Your task to perform on an android device: open app "Pinterest" (install if not already installed) Image 0: 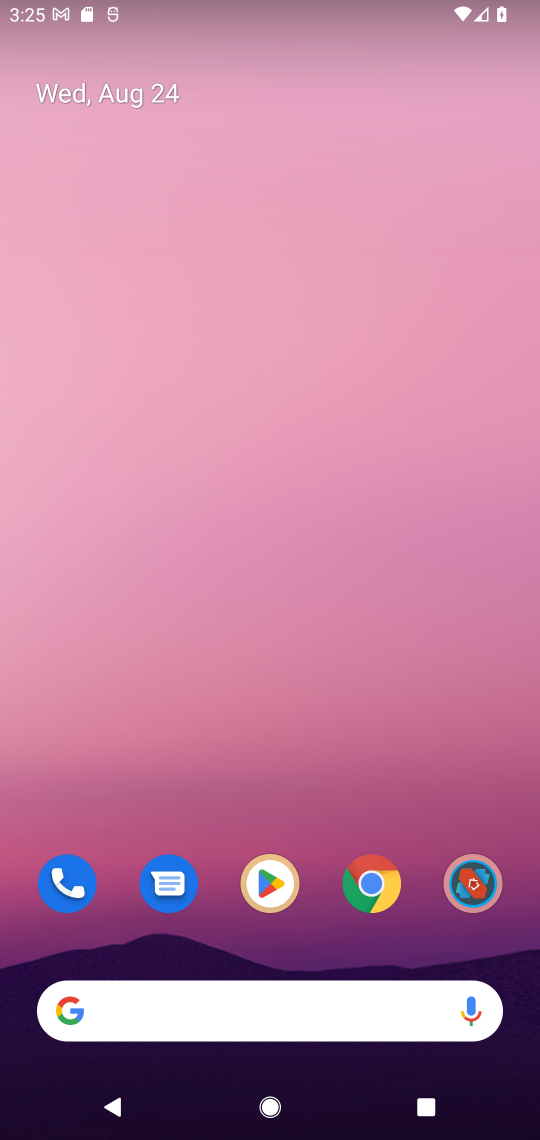
Step 0: drag from (244, 959) to (347, 260)
Your task to perform on an android device: open app "Pinterest" (install if not already installed) Image 1: 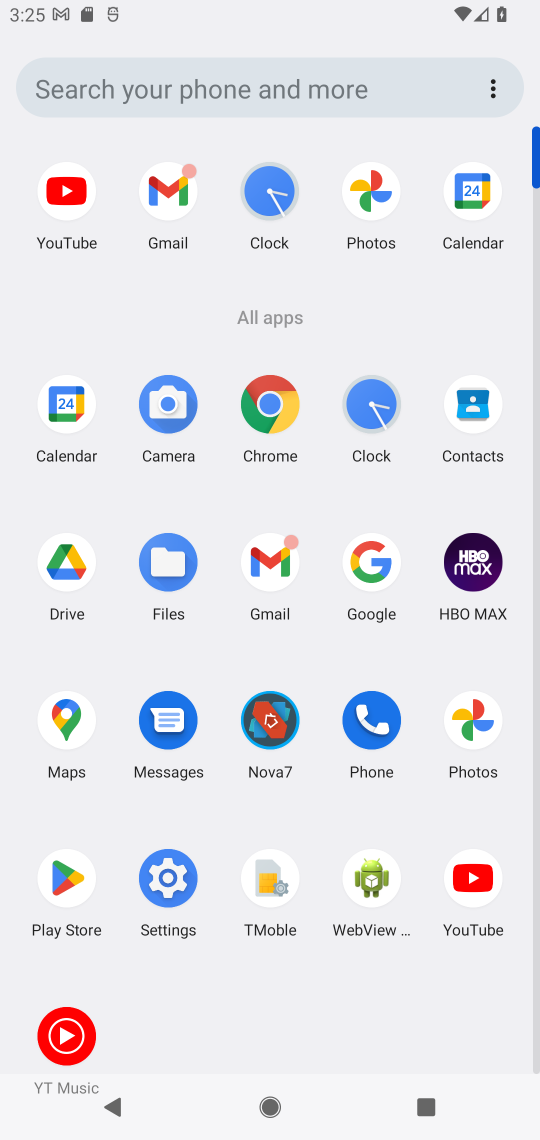
Step 1: click (50, 878)
Your task to perform on an android device: open app "Pinterest" (install if not already installed) Image 2: 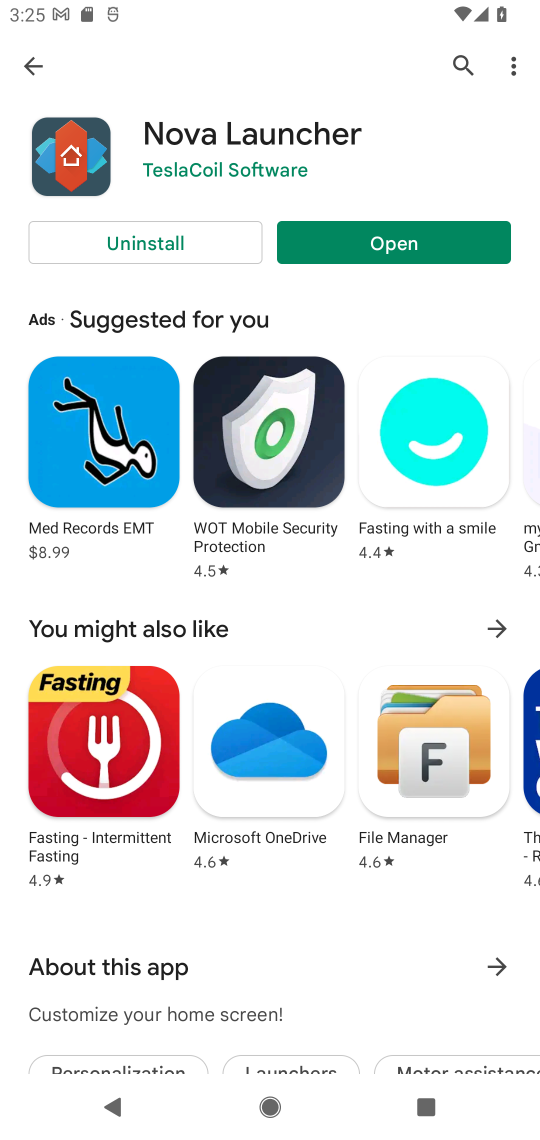
Step 2: click (460, 80)
Your task to perform on an android device: open app "Pinterest" (install if not already installed) Image 3: 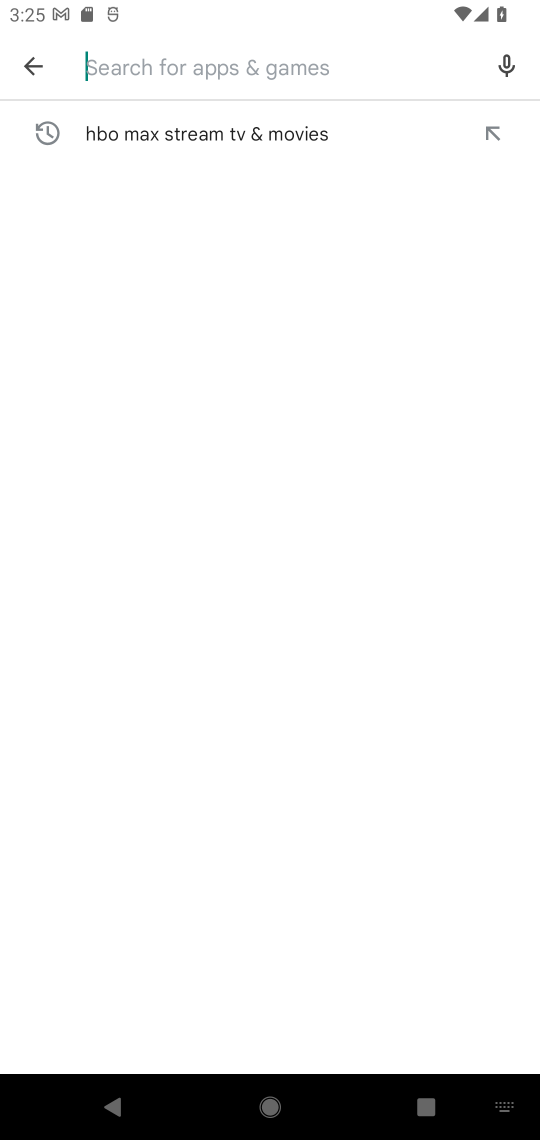
Step 3: type "Pinterest"
Your task to perform on an android device: open app "Pinterest" (install if not already installed) Image 4: 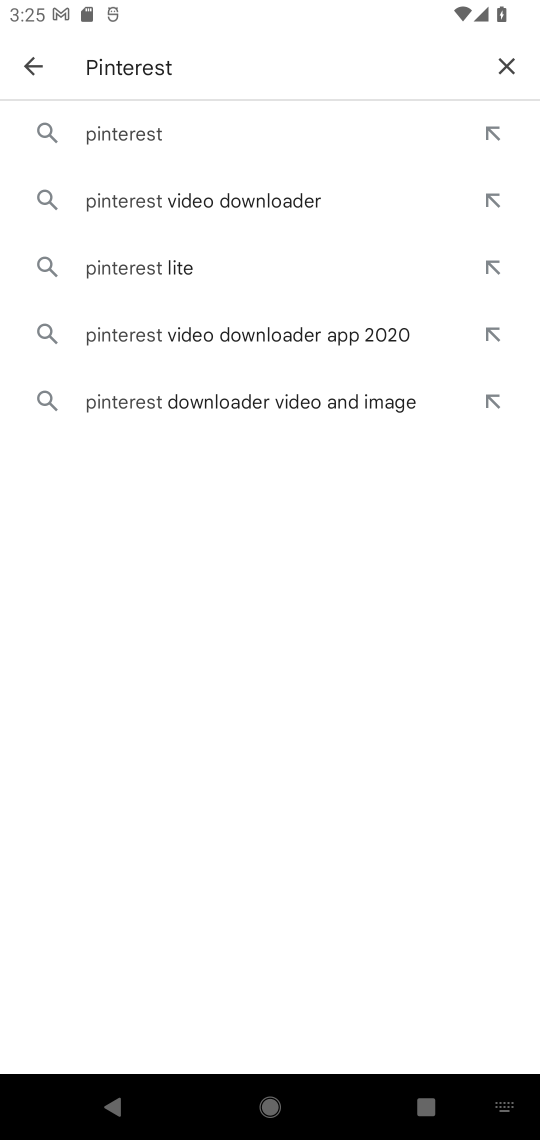
Step 4: click (114, 139)
Your task to perform on an android device: open app "Pinterest" (install if not already installed) Image 5: 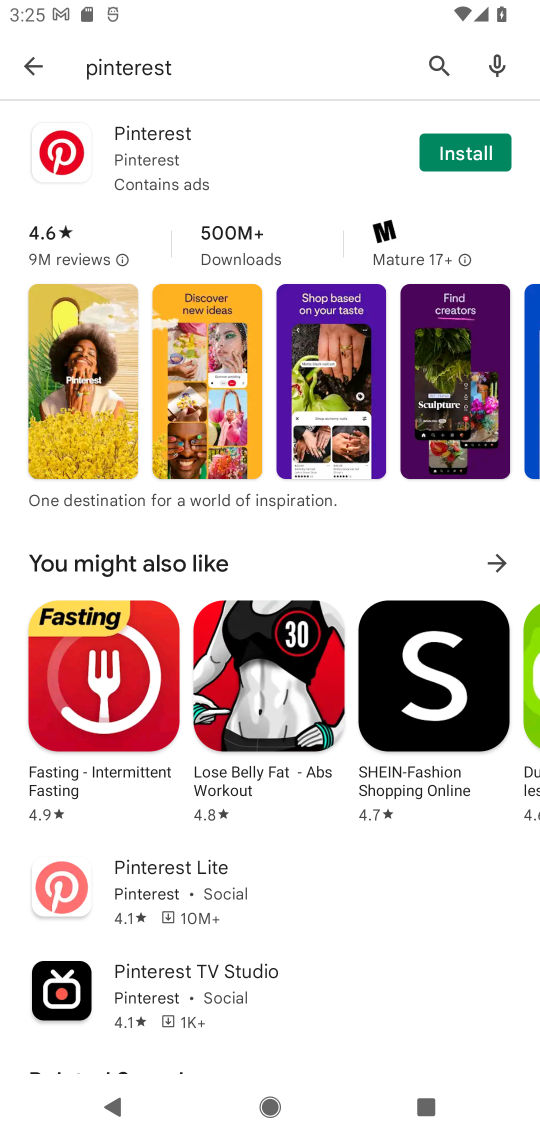
Step 5: click (459, 156)
Your task to perform on an android device: open app "Pinterest" (install if not already installed) Image 6: 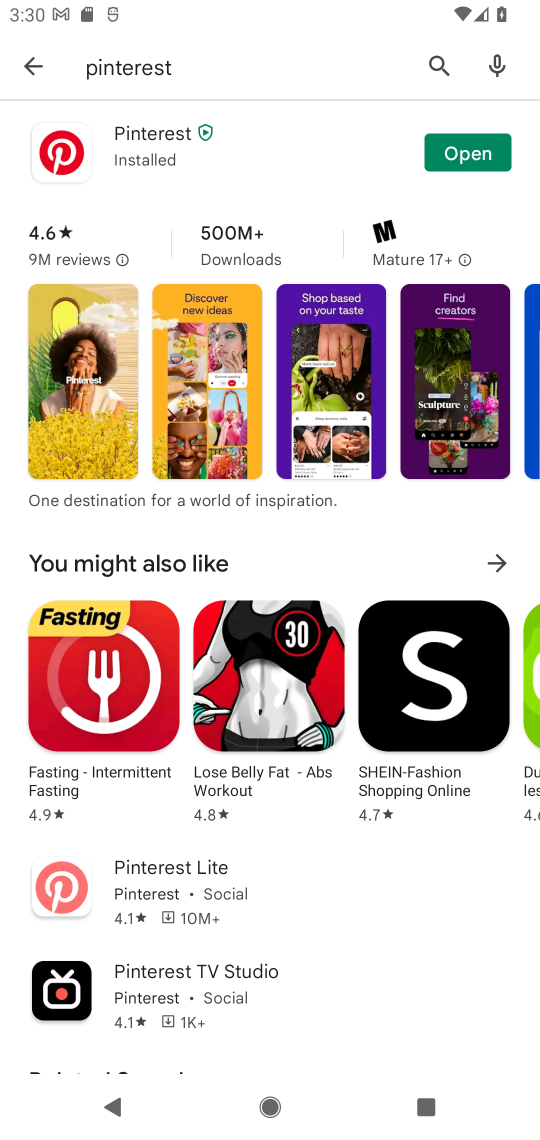
Step 6: click (463, 156)
Your task to perform on an android device: open app "Pinterest" (install if not already installed) Image 7: 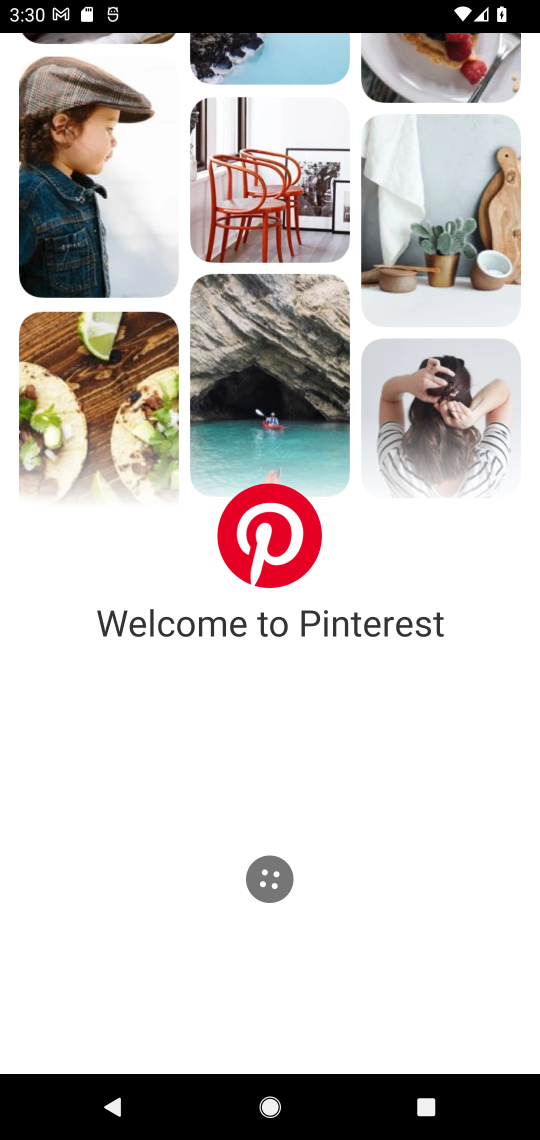
Step 7: task complete